Your task to perform on an android device: change alarm snooze length Image 0: 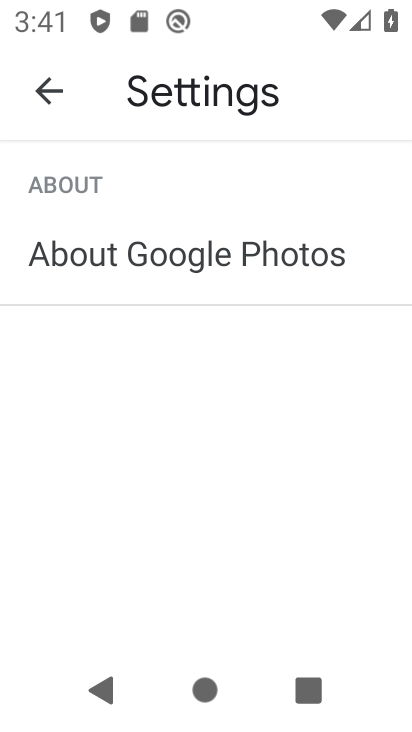
Step 0: press home button
Your task to perform on an android device: change alarm snooze length Image 1: 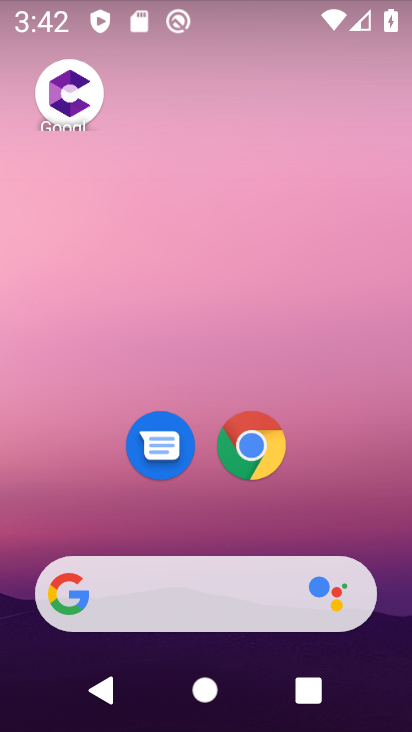
Step 1: drag from (57, 543) to (189, 51)
Your task to perform on an android device: change alarm snooze length Image 2: 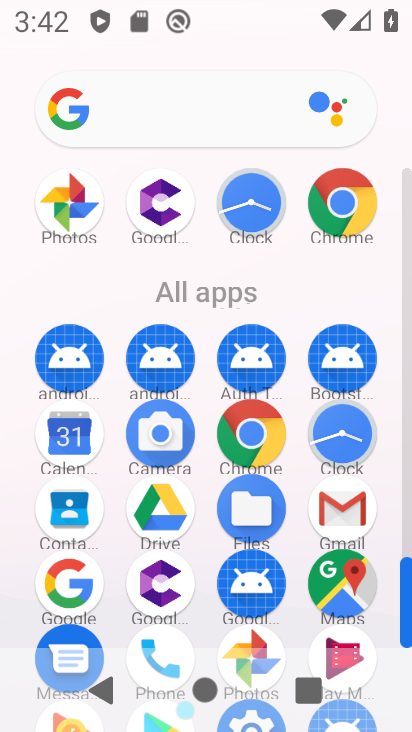
Step 2: click (343, 446)
Your task to perform on an android device: change alarm snooze length Image 3: 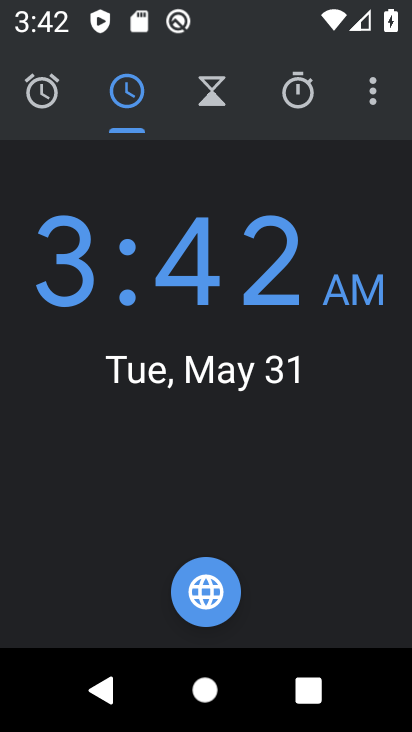
Step 3: drag from (384, 95) to (351, 129)
Your task to perform on an android device: change alarm snooze length Image 4: 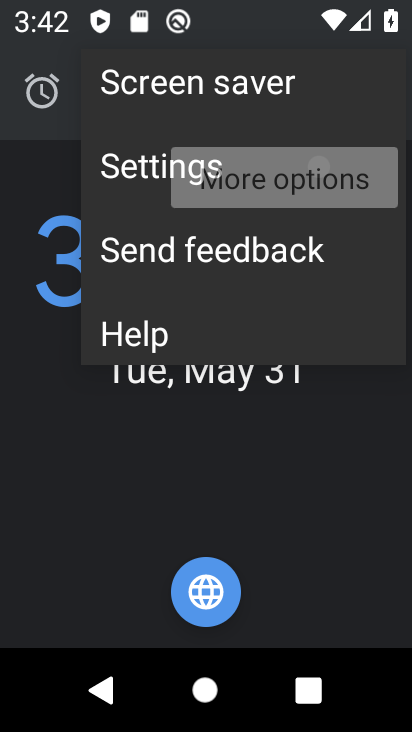
Step 4: click (362, 90)
Your task to perform on an android device: change alarm snooze length Image 5: 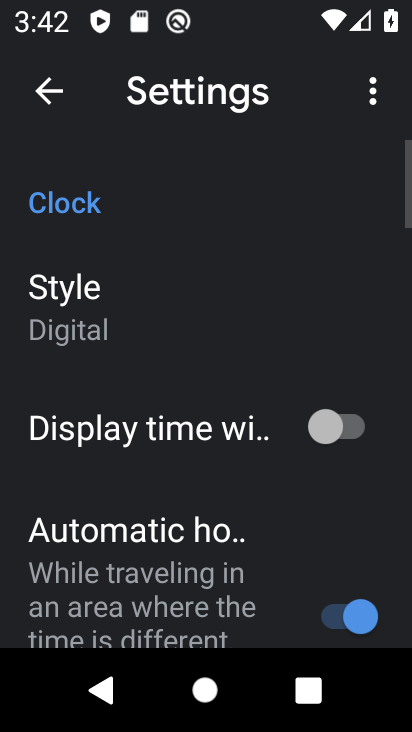
Step 5: drag from (179, 499) to (296, 132)
Your task to perform on an android device: change alarm snooze length Image 6: 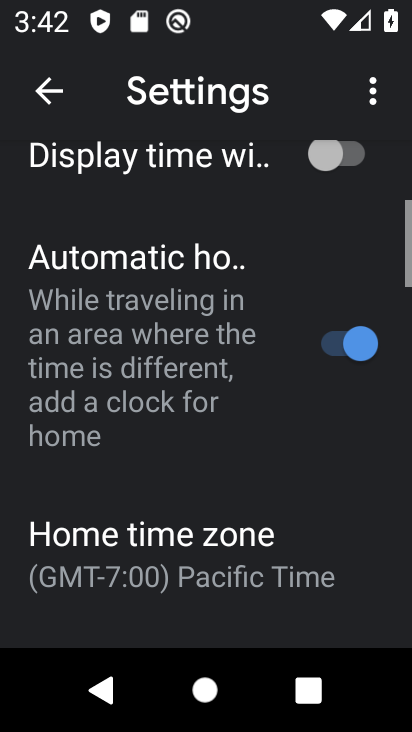
Step 6: drag from (137, 527) to (270, 121)
Your task to perform on an android device: change alarm snooze length Image 7: 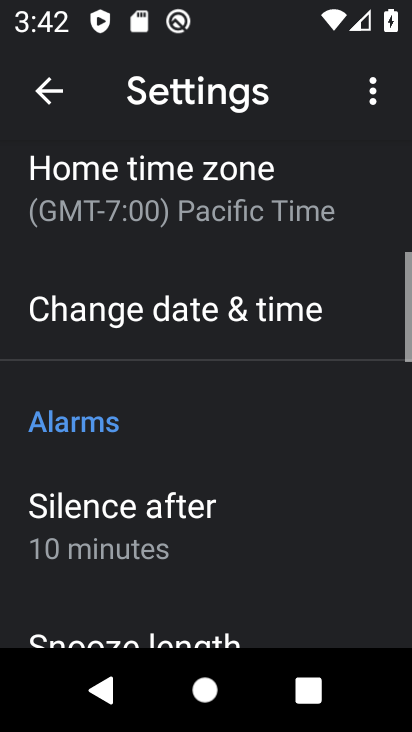
Step 7: drag from (244, 243) to (283, 110)
Your task to perform on an android device: change alarm snooze length Image 8: 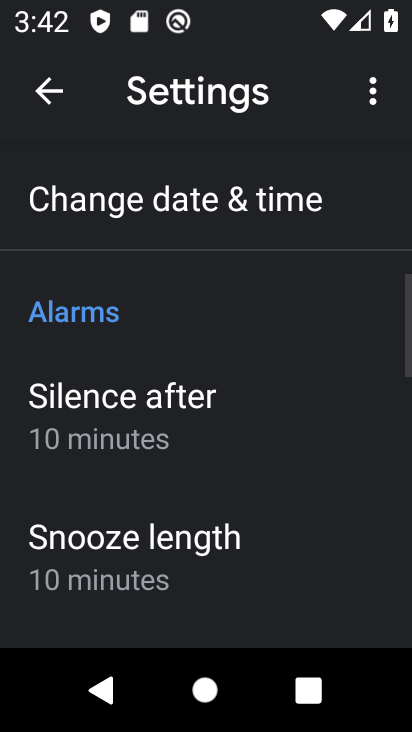
Step 8: click (168, 534)
Your task to perform on an android device: change alarm snooze length Image 9: 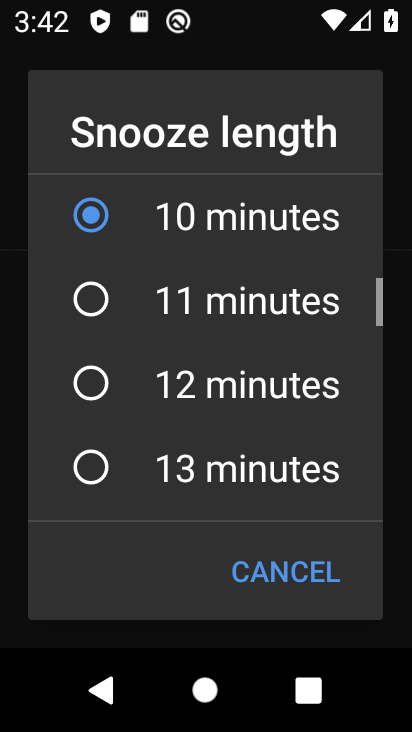
Step 9: click (272, 491)
Your task to perform on an android device: change alarm snooze length Image 10: 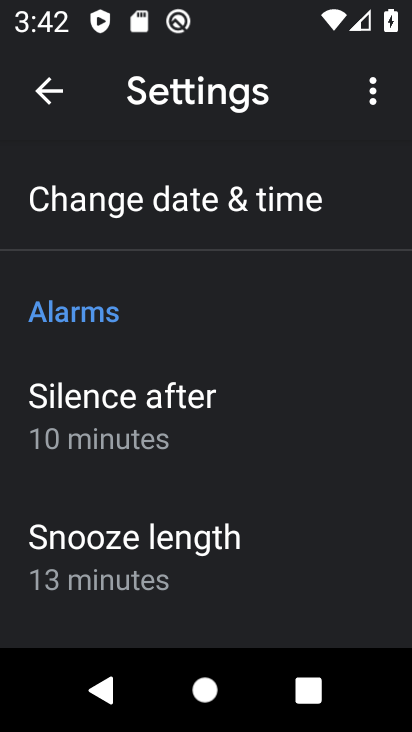
Step 10: task complete